Your task to perform on an android device: What's the weather going to be tomorrow? Image 0: 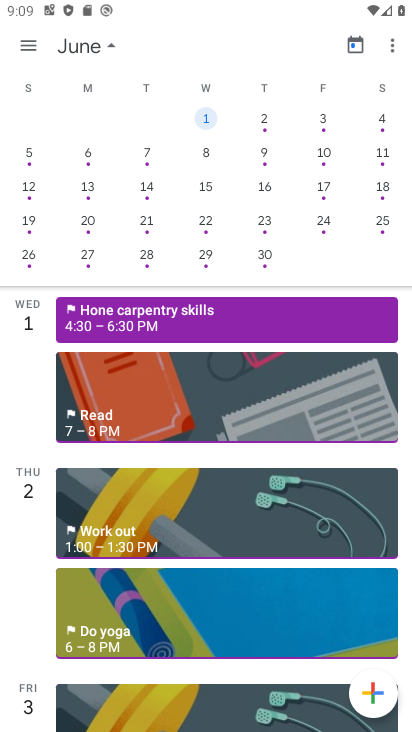
Step 0: press home button
Your task to perform on an android device: What's the weather going to be tomorrow? Image 1: 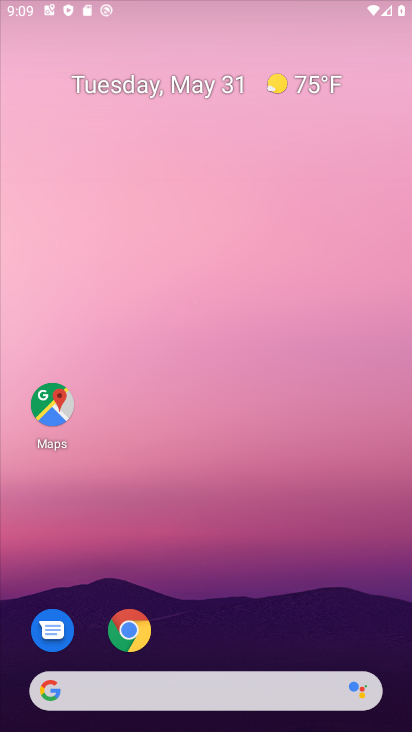
Step 1: drag from (280, 644) to (294, 34)
Your task to perform on an android device: What's the weather going to be tomorrow? Image 2: 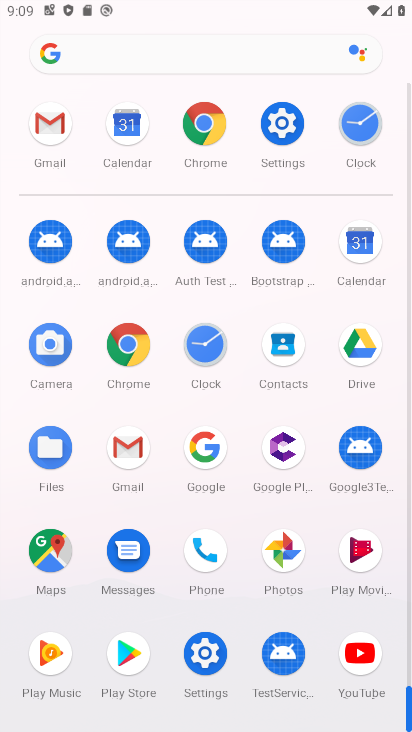
Step 2: click (202, 471)
Your task to perform on an android device: What's the weather going to be tomorrow? Image 3: 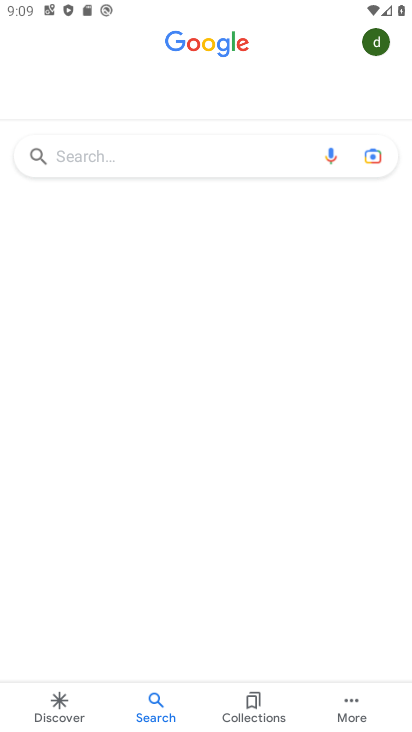
Step 3: click (188, 155)
Your task to perform on an android device: What's the weather going to be tomorrow? Image 4: 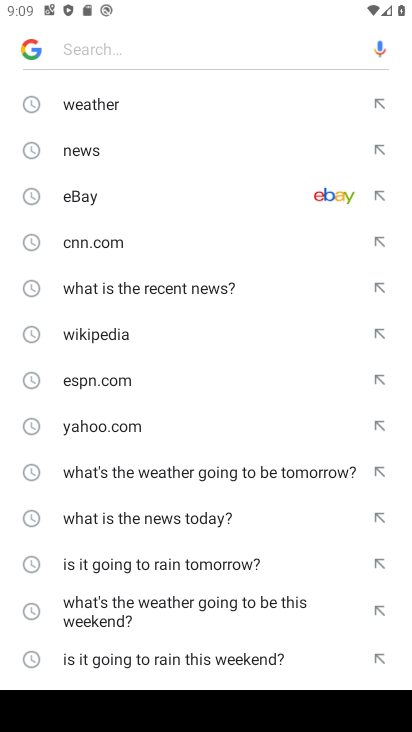
Step 4: click (113, 108)
Your task to perform on an android device: What's the weather going to be tomorrow? Image 5: 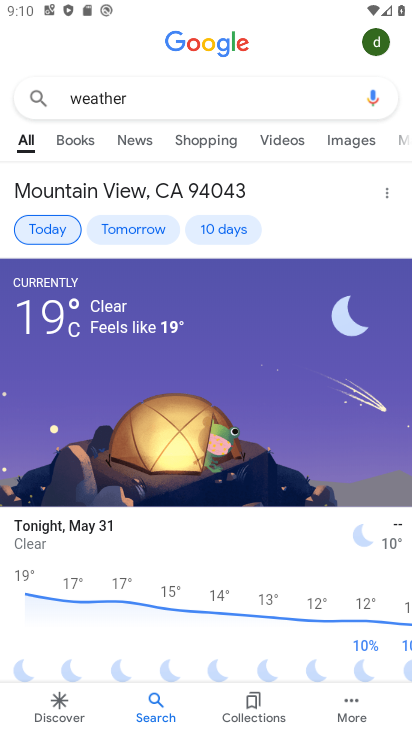
Step 5: click (140, 228)
Your task to perform on an android device: What's the weather going to be tomorrow? Image 6: 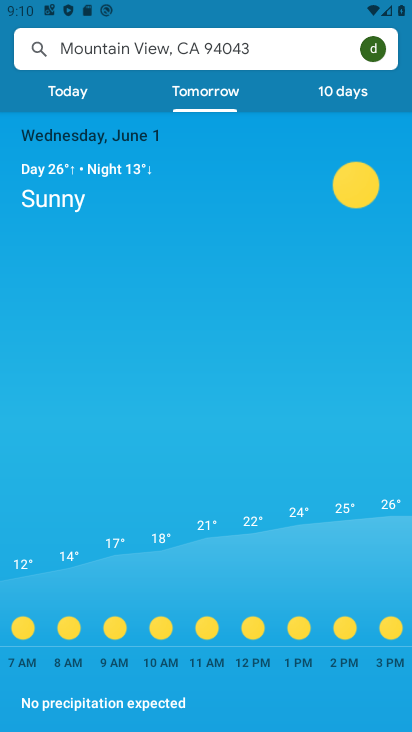
Step 6: task complete